Your task to perform on an android device: see tabs open on other devices in the chrome app Image 0: 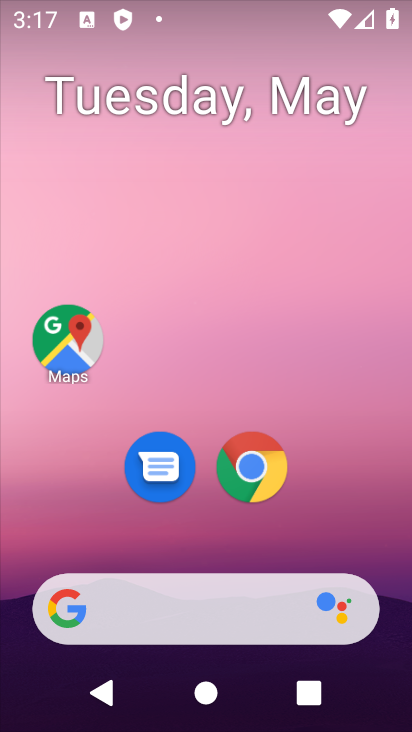
Step 0: click (261, 497)
Your task to perform on an android device: see tabs open on other devices in the chrome app Image 1: 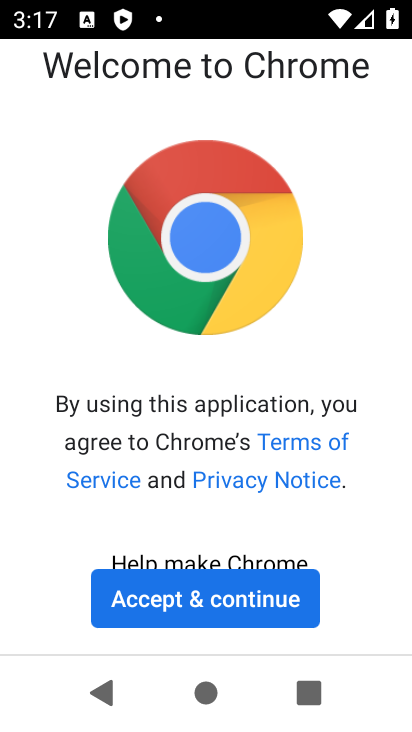
Step 1: click (202, 611)
Your task to perform on an android device: see tabs open on other devices in the chrome app Image 2: 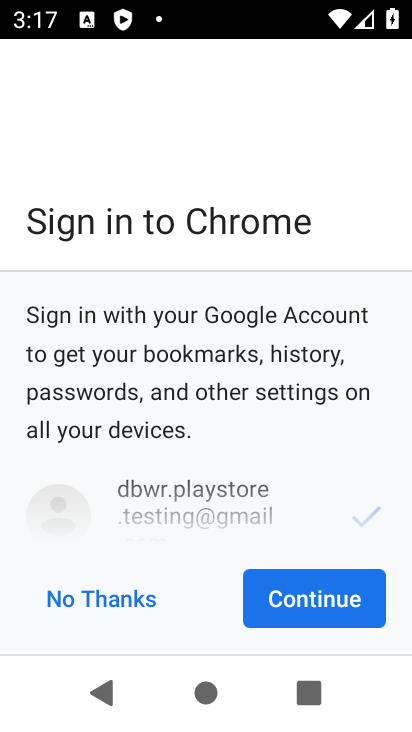
Step 2: click (329, 609)
Your task to perform on an android device: see tabs open on other devices in the chrome app Image 3: 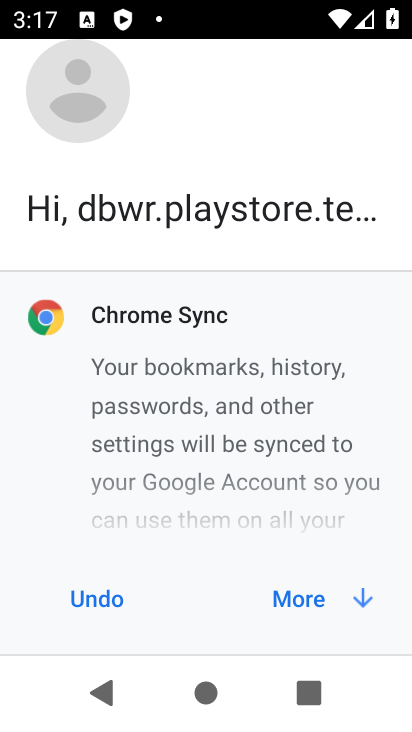
Step 3: click (329, 609)
Your task to perform on an android device: see tabs open on other devices in the chrome app Image 4: 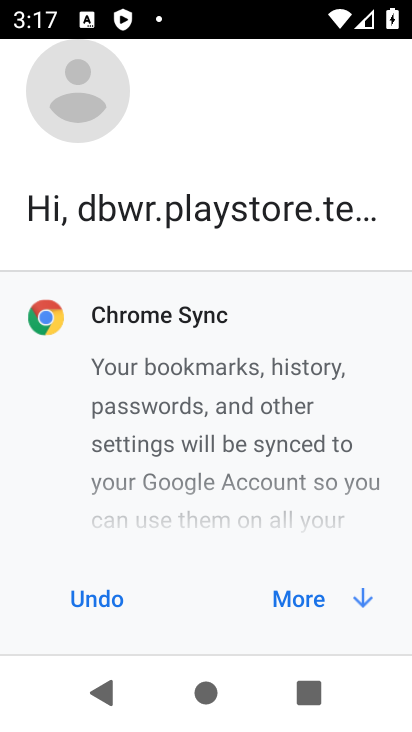
Step 4: click (329, 609)
Your task to perform on an android device: see tabs open on other devices in the chrome app Image 5: 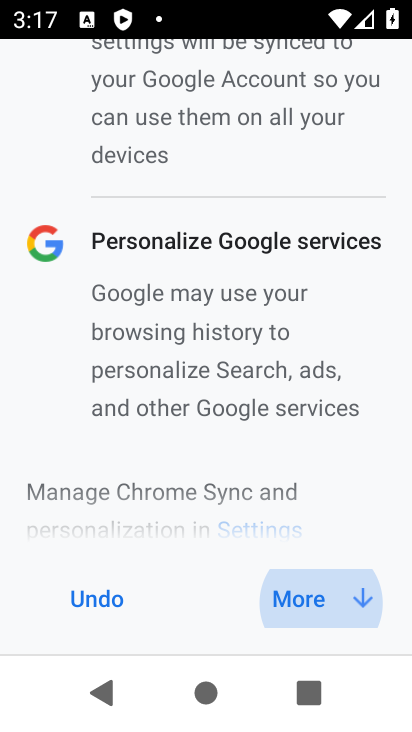
Step 5: click (329, 609)
Your task to perform on an android device: see tabs open on other devices in the chrome app Image 6: 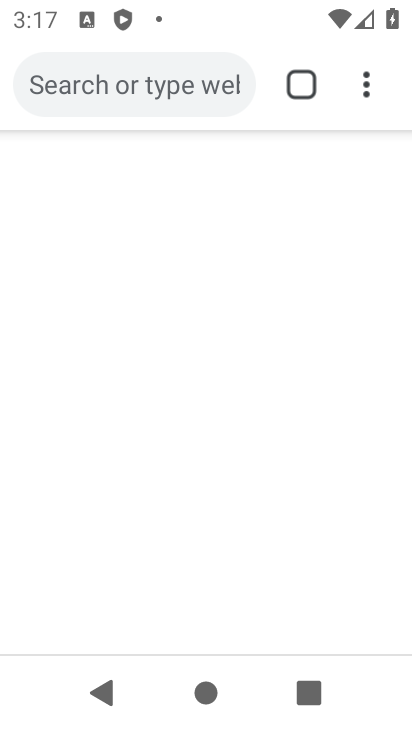
Step 6: click (329, 609)
Your task to perform on an android device: see tabs open on other devices in the chrome app Image 7: 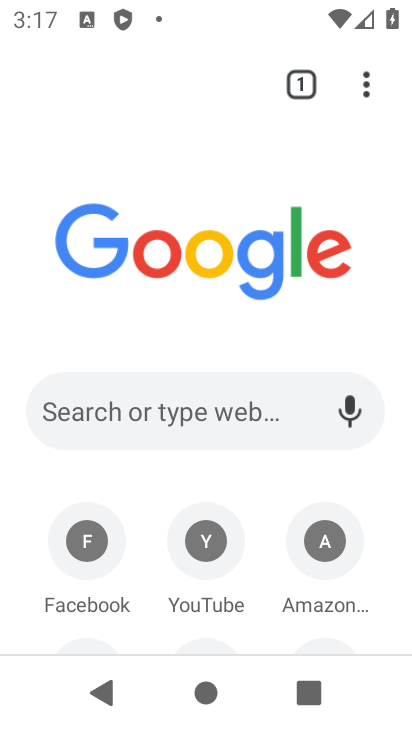
Step 7: task complete